Your task to perform on an android device: check the backup settings in the google photos Image 0: 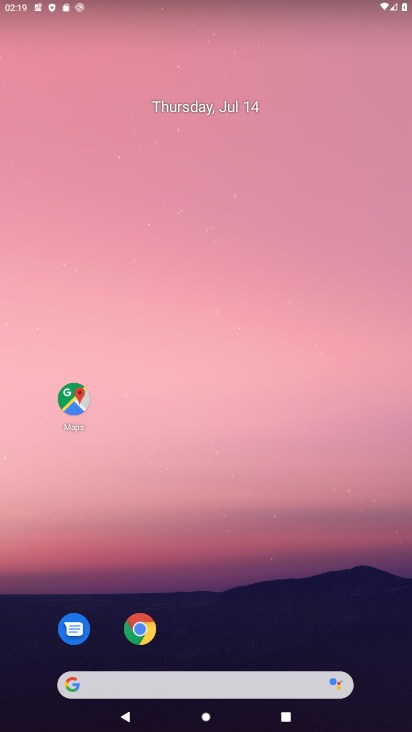
Step 0: drag from (247, 655) to (211, 7)
Your task to perform on an android device: check the backup settings in the google photos Image 1: 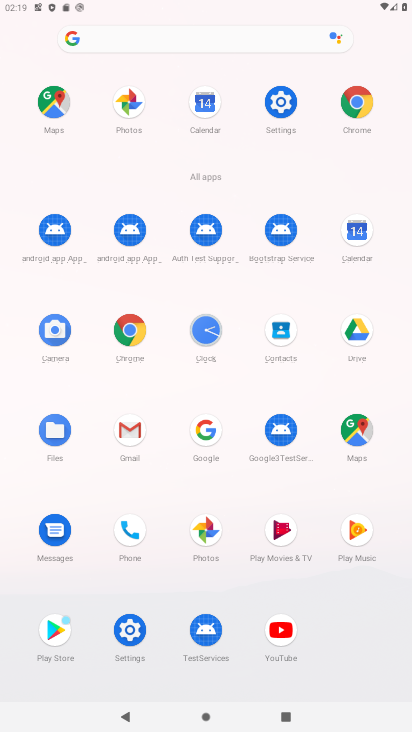
Step 1: click (211, 540)
Your task to perform on an android device: check the backup settings in the google photos Image 2: 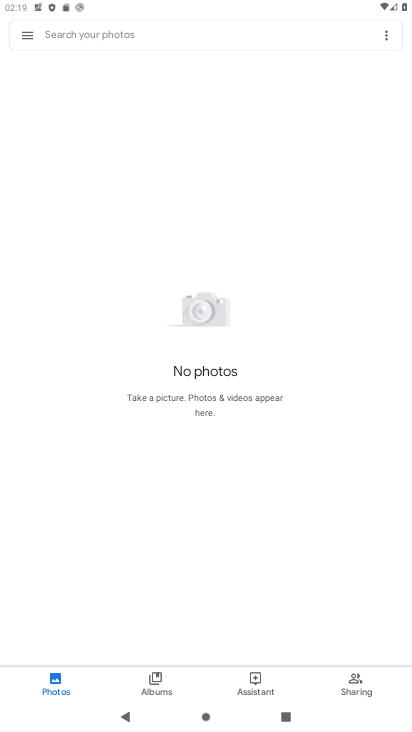
Step 2: click (29, 32)
Your task to perform on an android device: check the backup settings in the google photos Image 3: 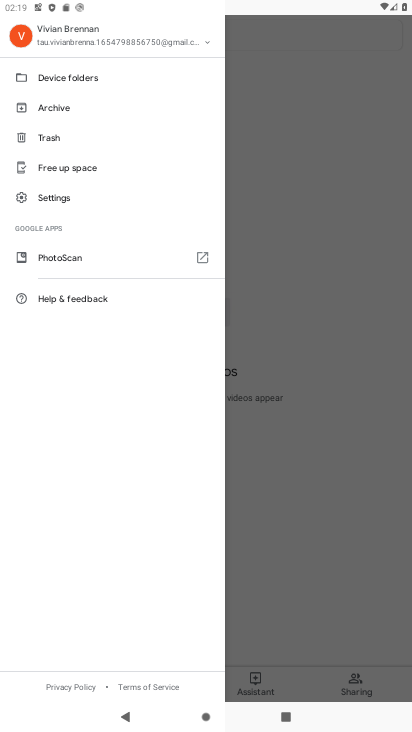
Step 3: click (57, 194)
Your task to perform on an android device: check the backup settings in the google photos Image 4: 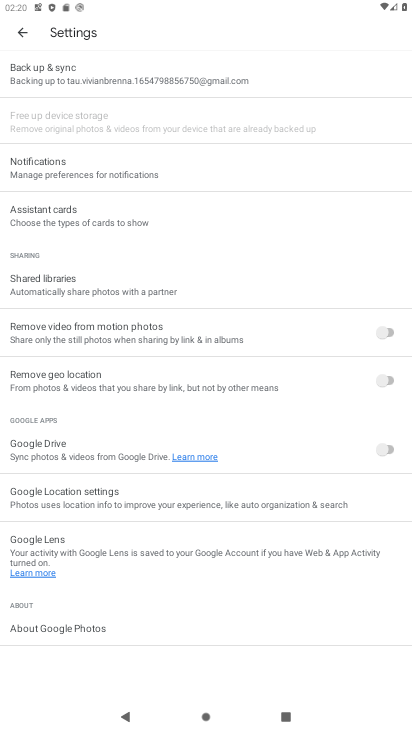
Step 4: click (136, 72)
Your task to perform on an android device: check the backup settings in the google photos Image 5: 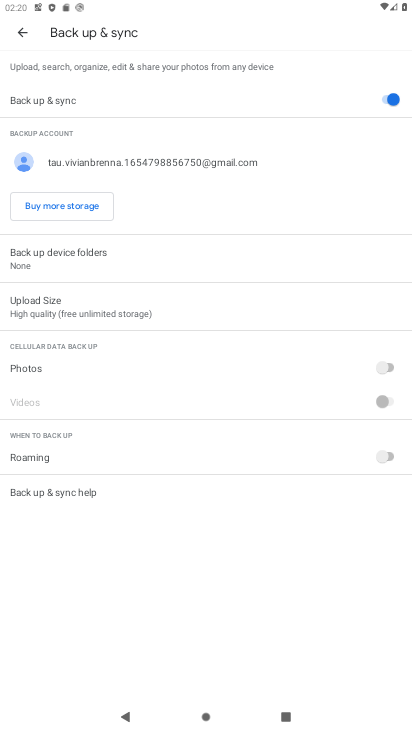
Step 5: task complete